Your task to perform on an android device: turn off location history Image 0: 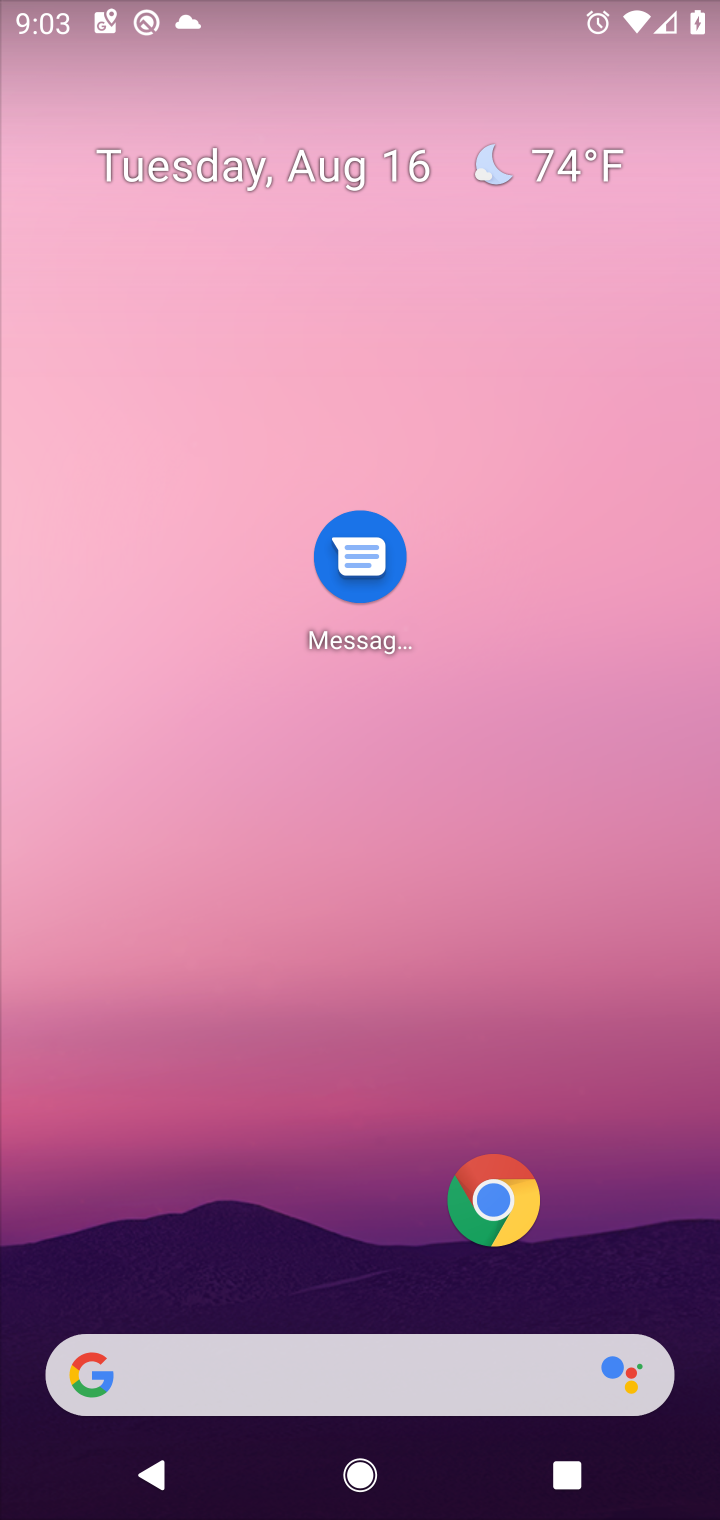
Step 0: drag from (68, 1460) to (325, 416)
Your task to perform on an android device: turn off location history Image 1: 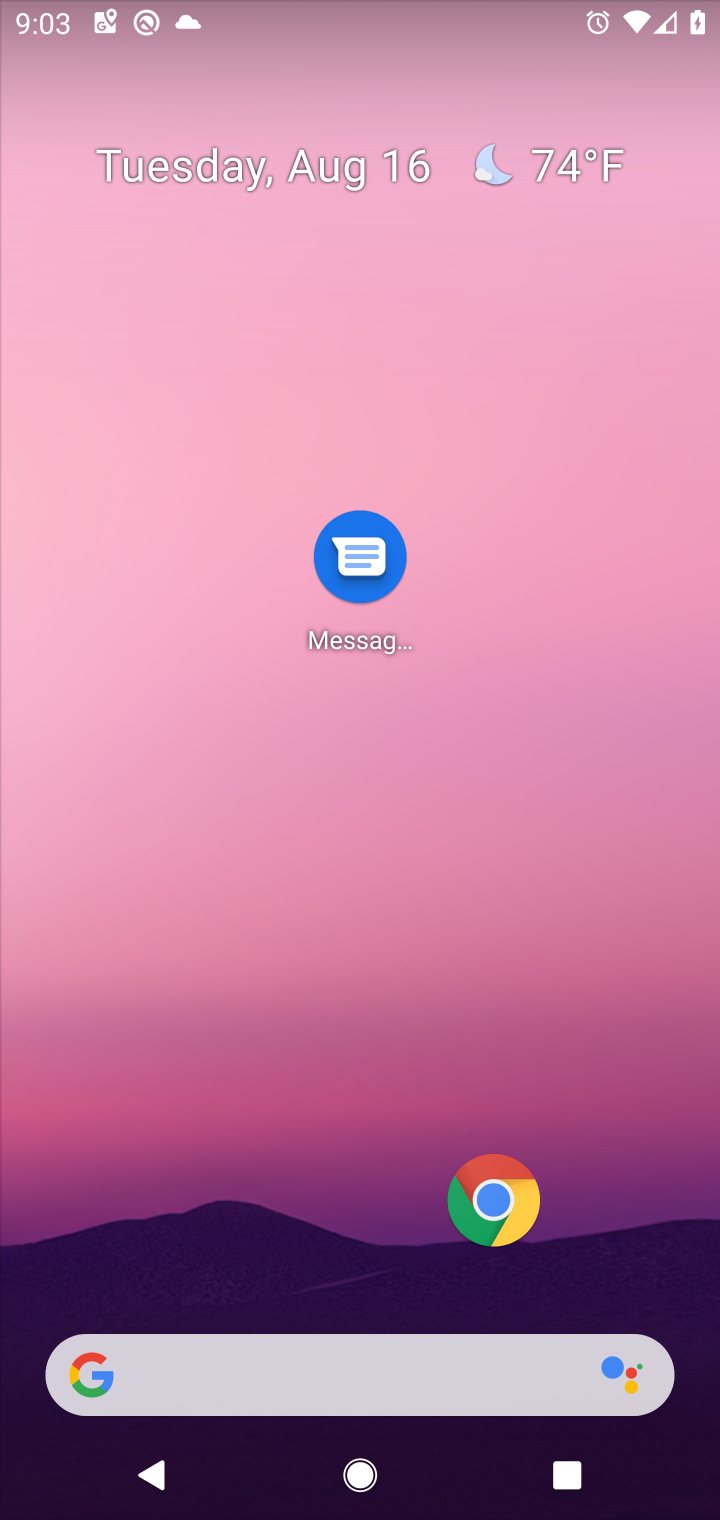
Step 1: drag from (40, 1450) to (351, 47)
Your task to perform on an android device: turn off location history Image 2: 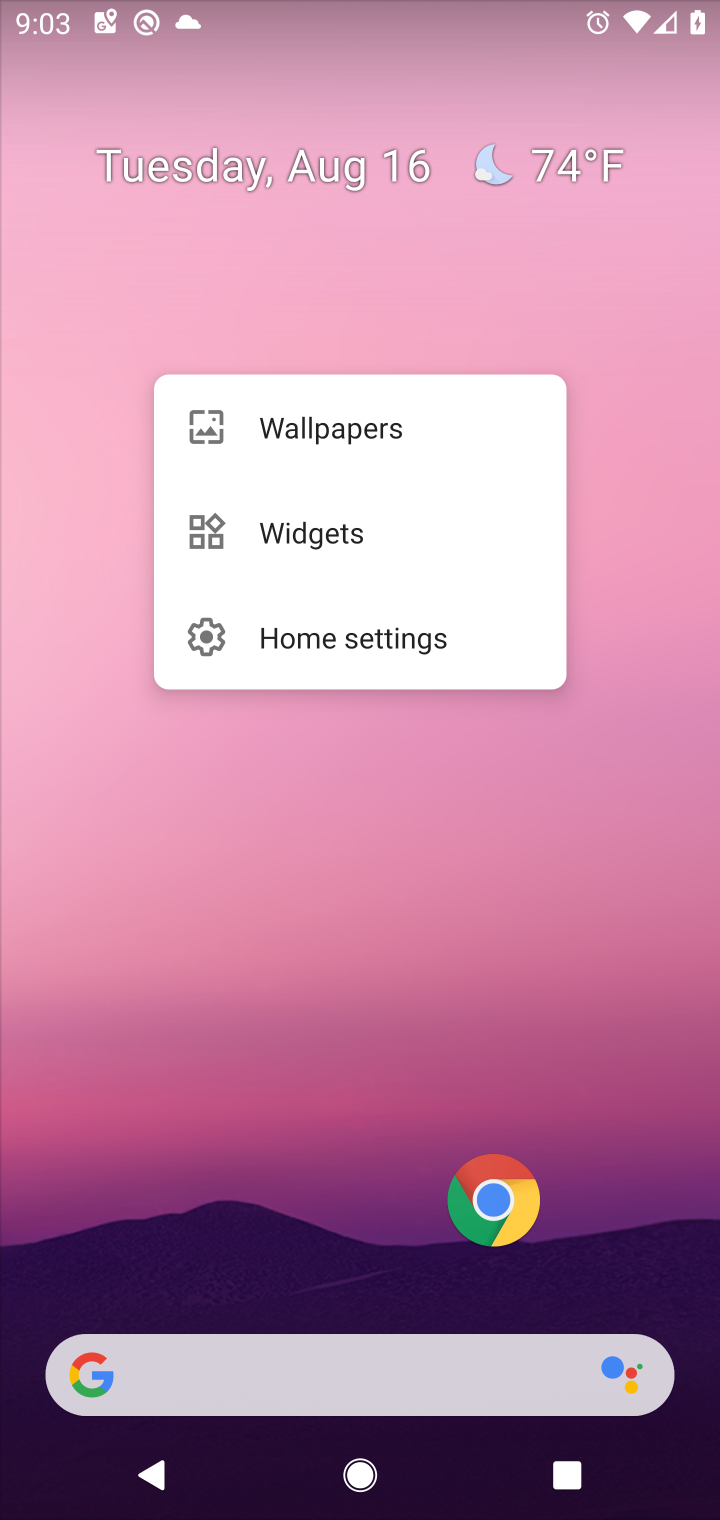
Step 2: drag from (64, 1475) to (152, 834)
Your task to perform on an android device: turn off location history Image 3: 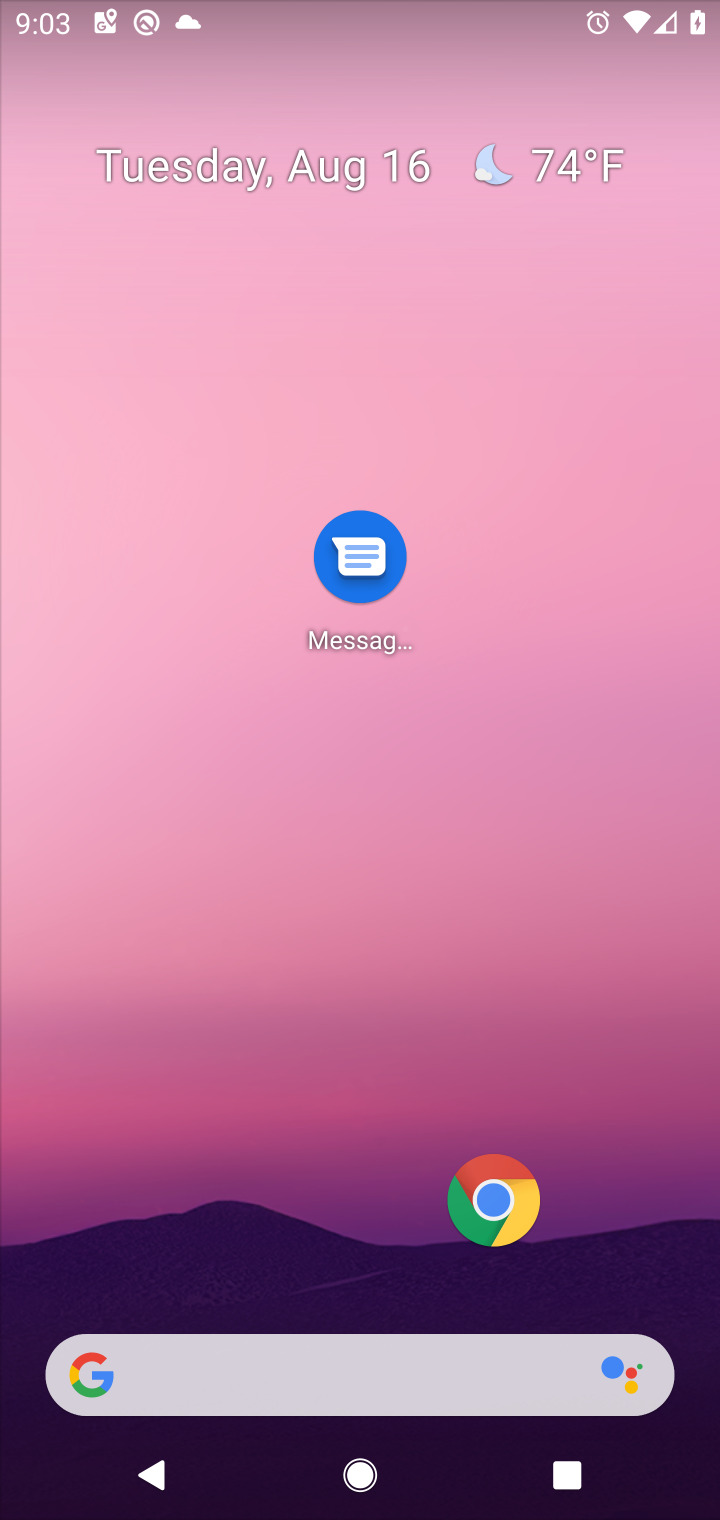
Step 3: drag from (63, 1430) to (233, 491)
Your task to perform on an android device: turn off location history Image 4: 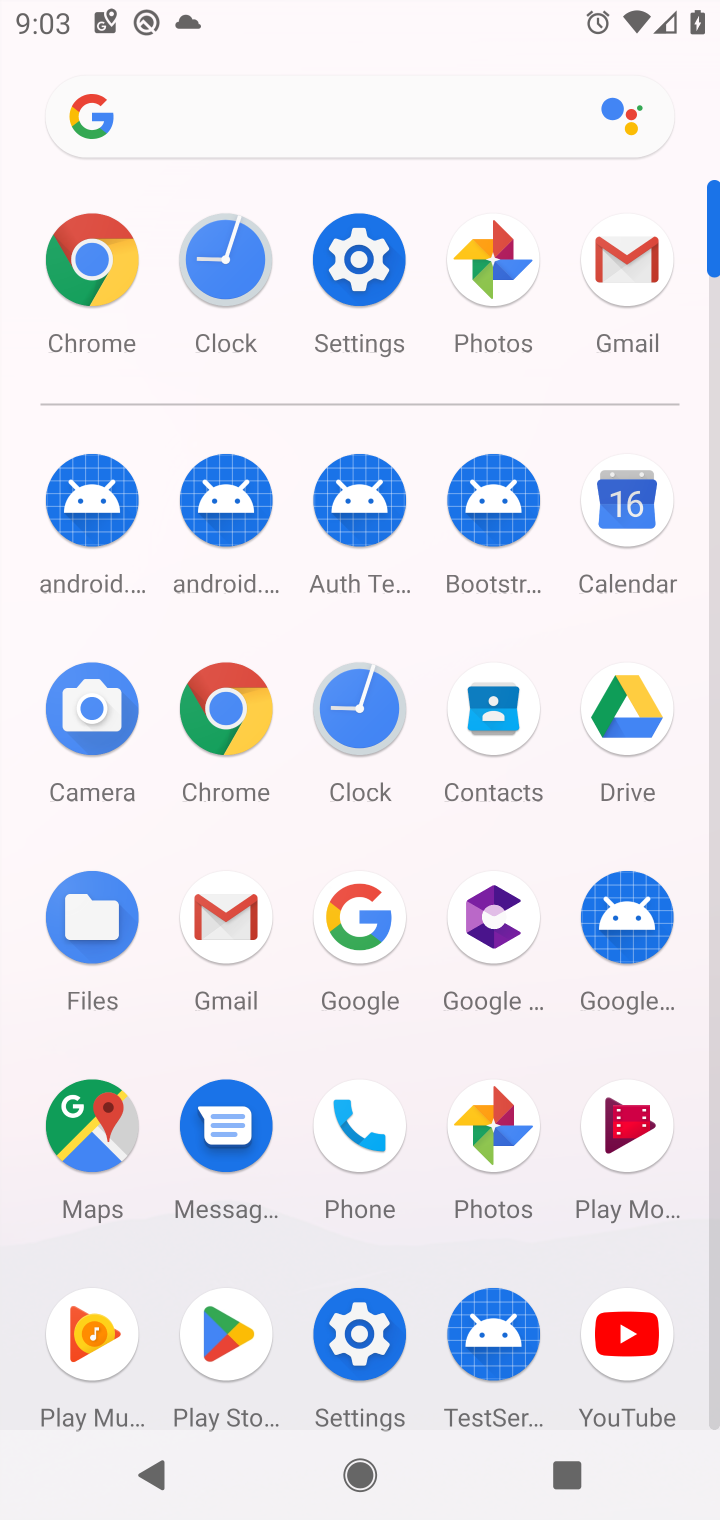
Step 4: click (348, 1335)
Your task to perform on an android device: turn off location history Image 5: 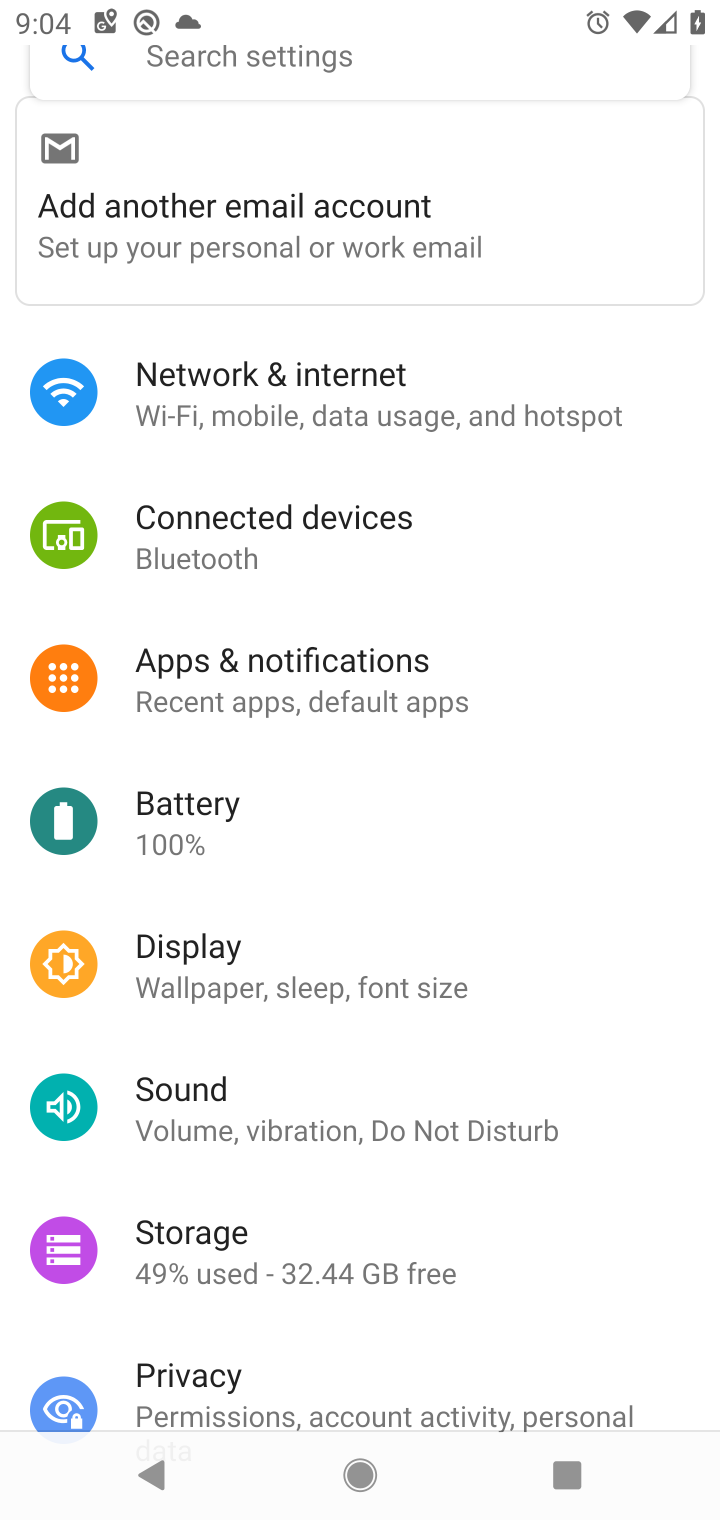
Step 5: drag from (635, 1333) to (584, 789)
Your task to perform on an android device: turn off location history Image 6: 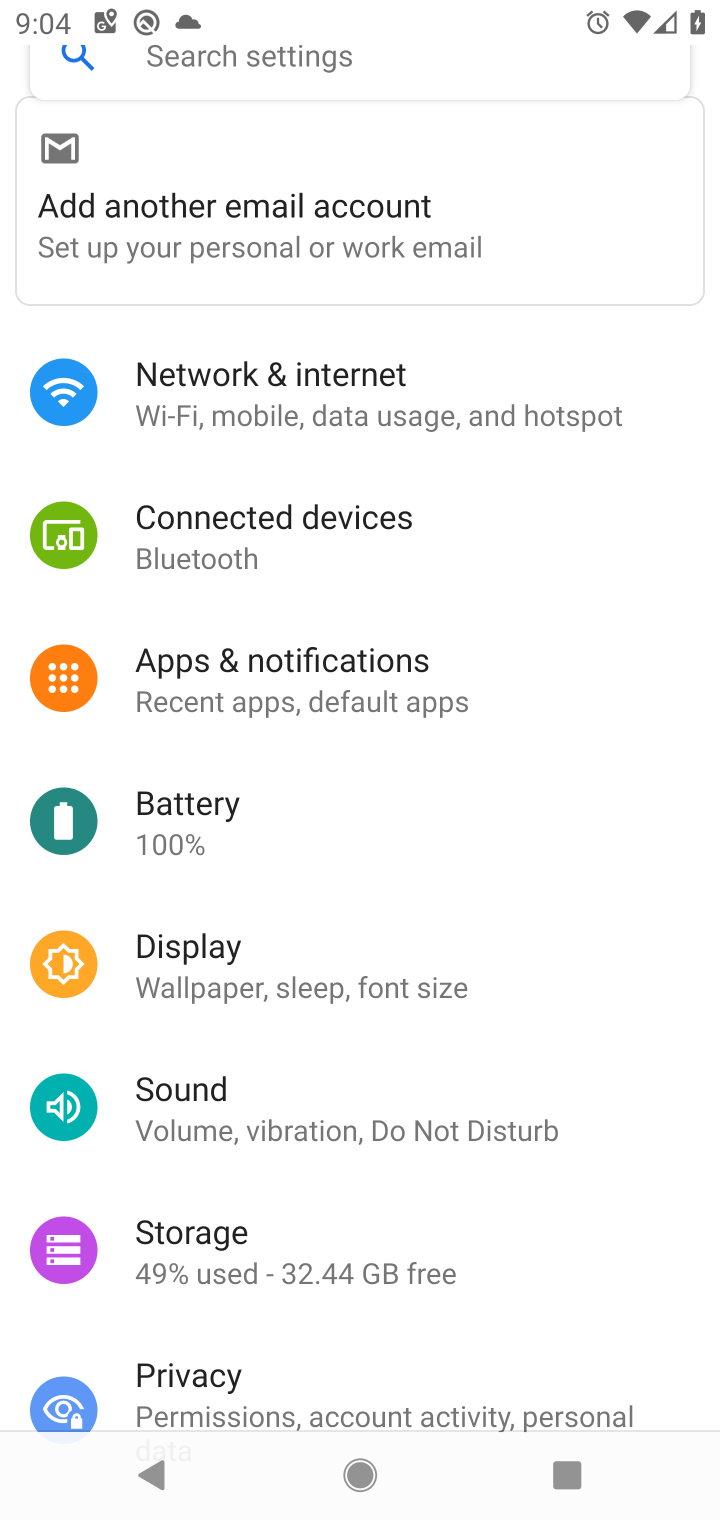
Step 6: drag from (647, 988) to (588, 549)
Your task to perform on an android device: turn off location history Image 7: 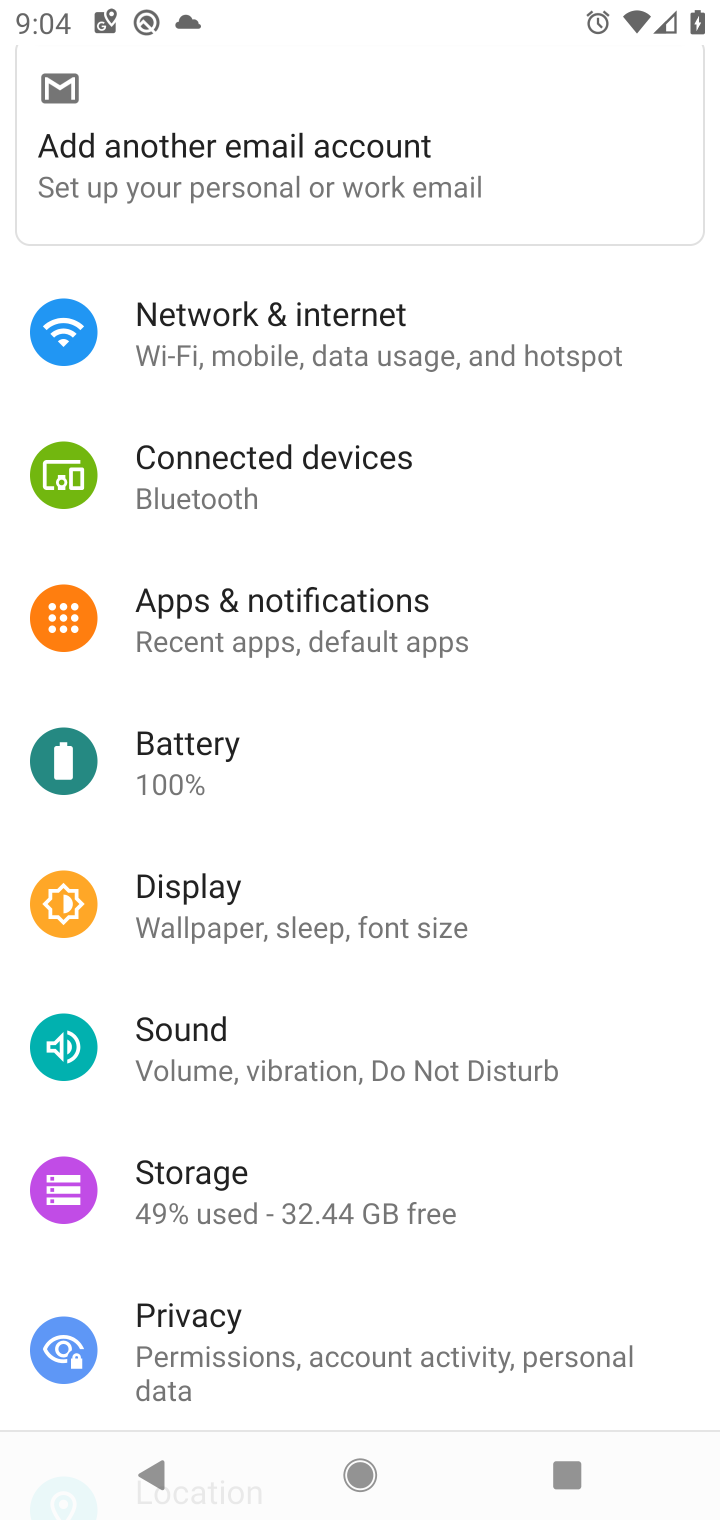
Step 7: drag from (676, 1246) to (639, 340)
Your task to perform on an android device: turn off location history Image 8: 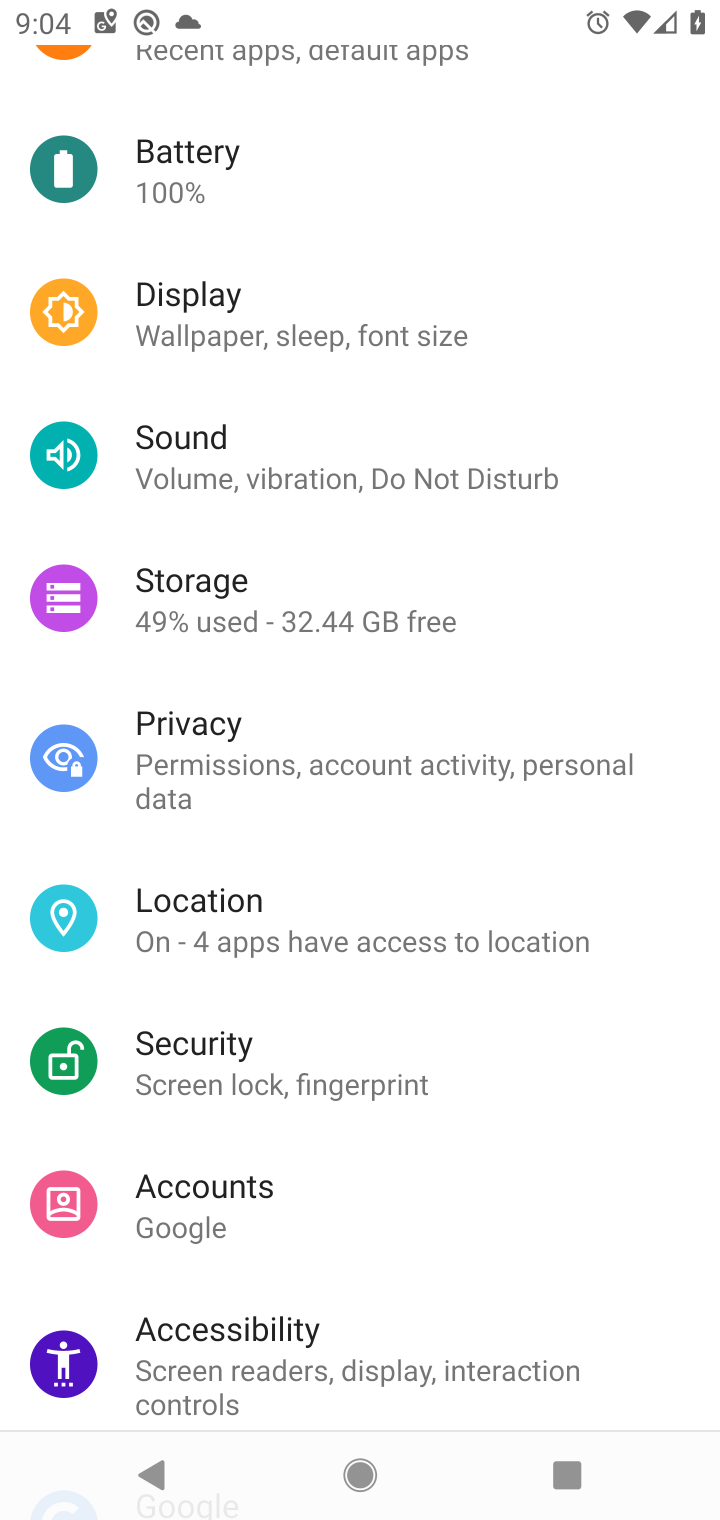
Step 8: click (205, 934)
Your task to perform on an android device: turn off location history Image 9: 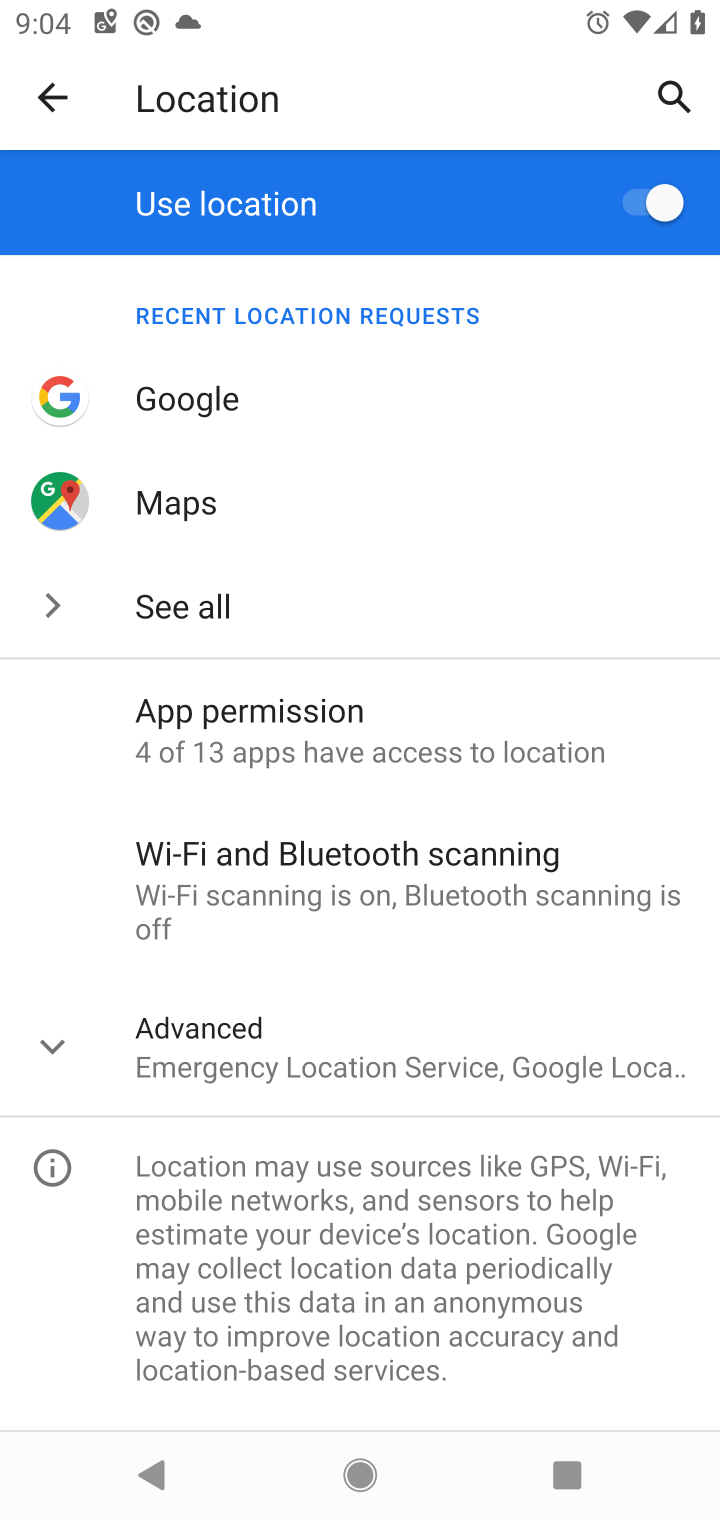
Step 9: click (211, 1022)
Your task to perform on an android device: turn off location history Image 10: 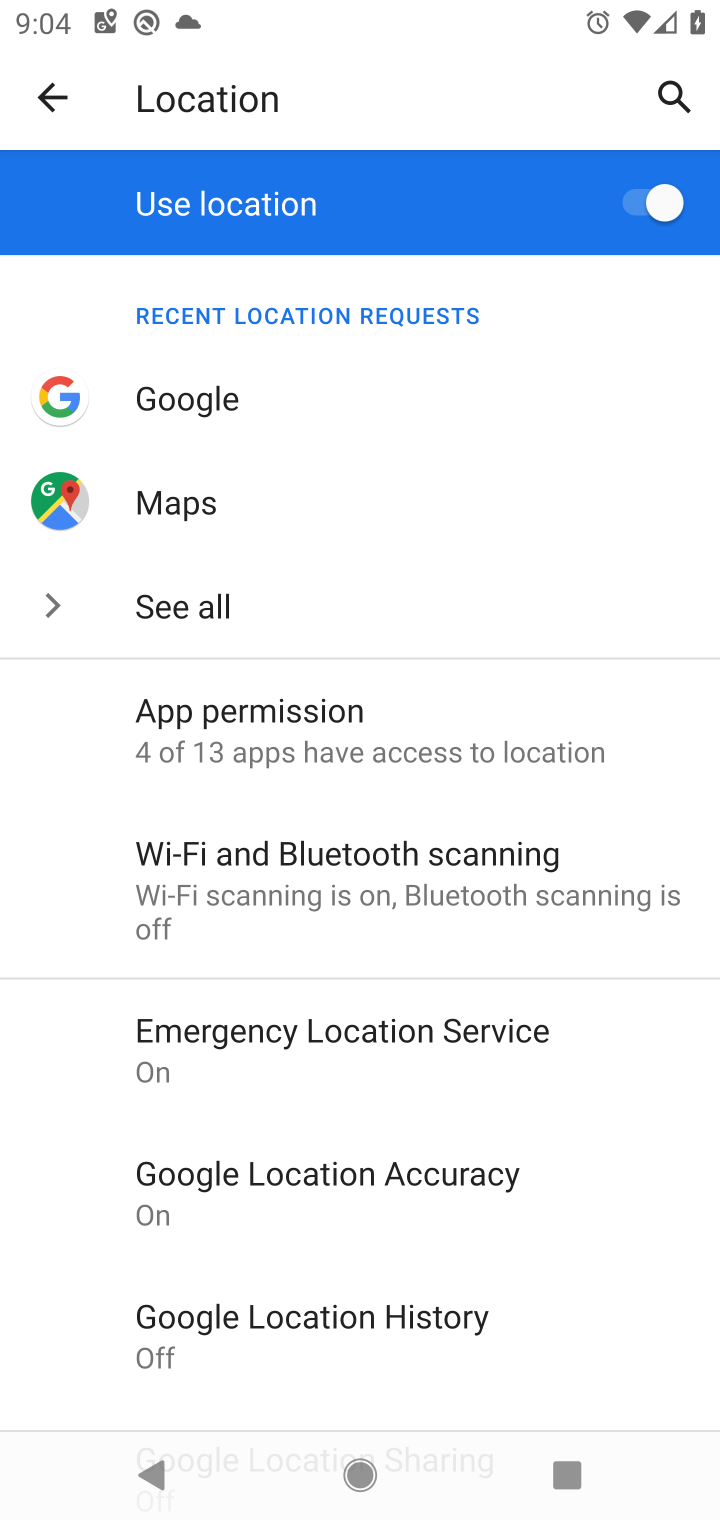
Step 10: task complete